Your task to perform on an android device: find which apps use the phone's location Image 0: 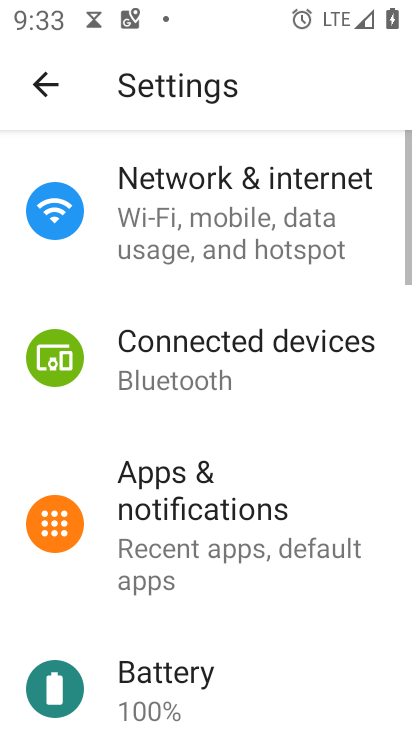
Step 0: press home button
Your task to perform on an android device: find which apps use the phone's location Image 1: 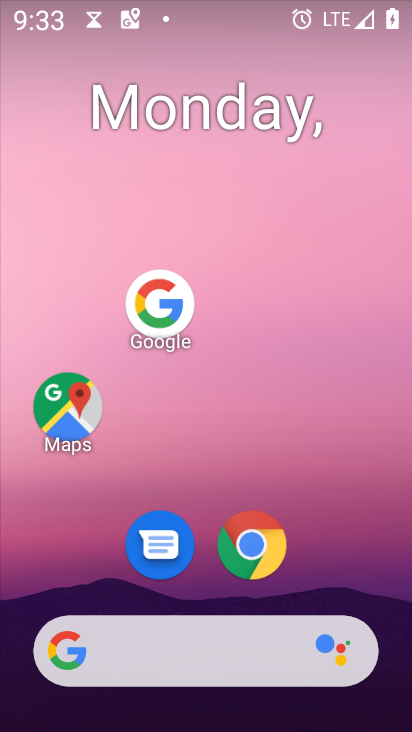
Step 1: drag from (207, 638) to (324, 70)
Your task to perform on an android device: find which apps use the phone's location Image 2: 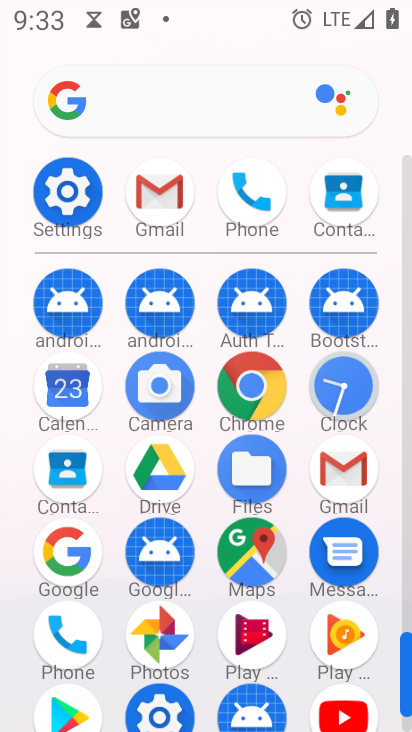
Step 2: click (85, 205)
Your task to perform on an android device: find which apps use the phone's location Image 3: 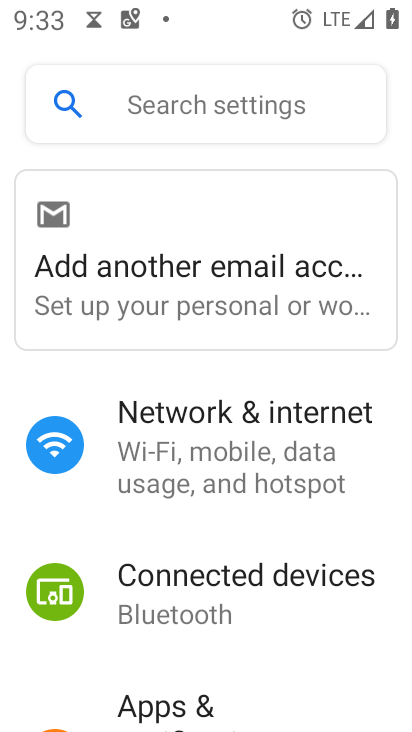
Step 3: drag from (316, 691) to (355, 144)
Your task to perform on an android device: find which apps use the phone's location Image 4: 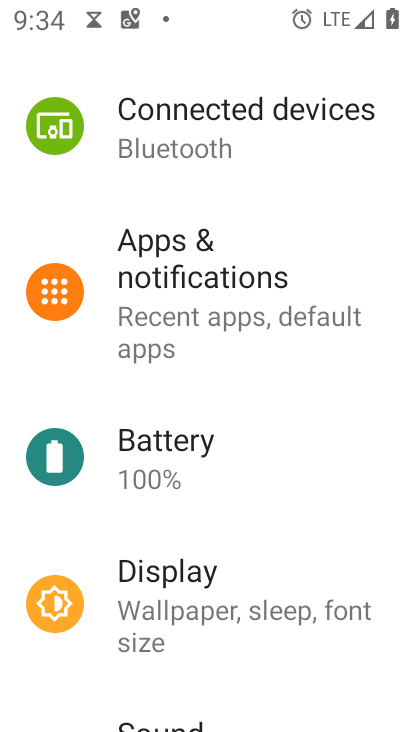
Step 4: drag from (217, 621) to (301, 135)
Your task to perform on an android device: find which apps use the phone's location Image 5: 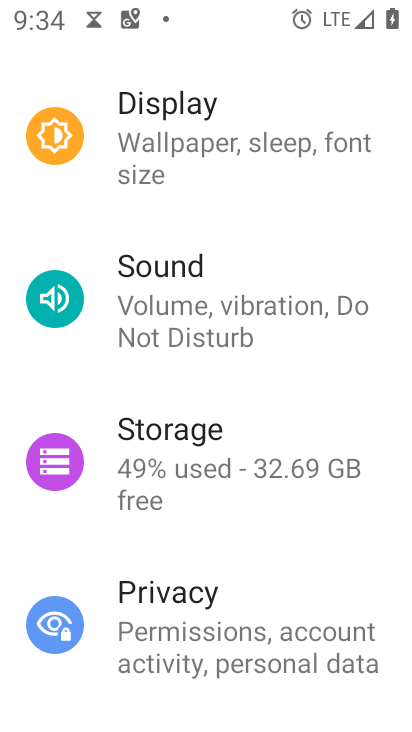
Step 5: drag from (232, 559) to (294, 142)
Your task to perform on an android device: find which apps use the phone's location Image 6: 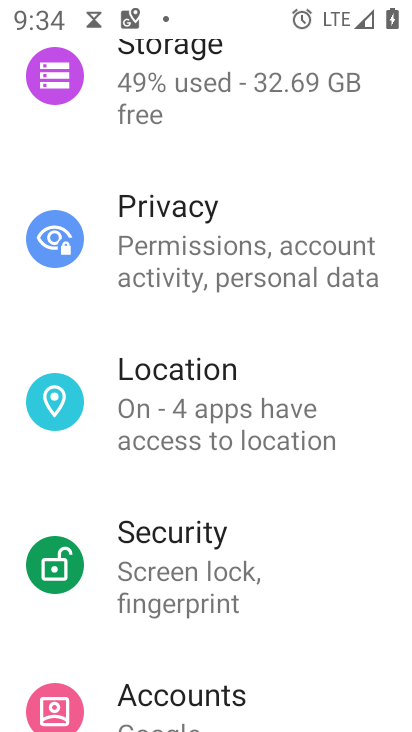
Step 6: click (211, 413)
Your task to perform on an android device: find which apps use the phone's location Image 7: 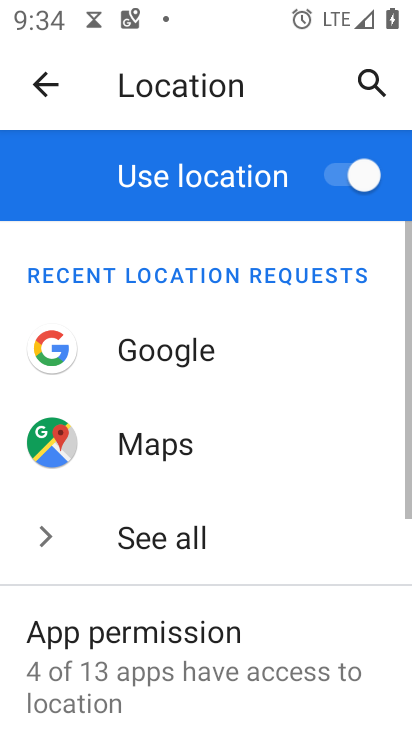
Step 7: click (110, 639)
Your task to perform on an android device: find which apps use the phone's location Image 8: 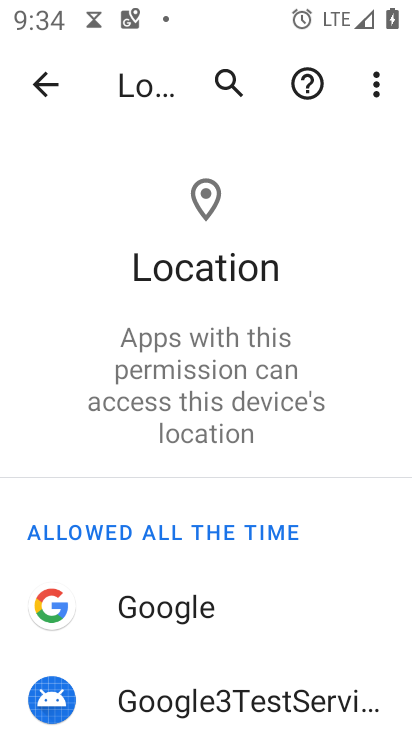
Step 8: drag from (193, 656) to (285, 27)
Your task to perform on an android device: find which apps use the phone's location Image 9: 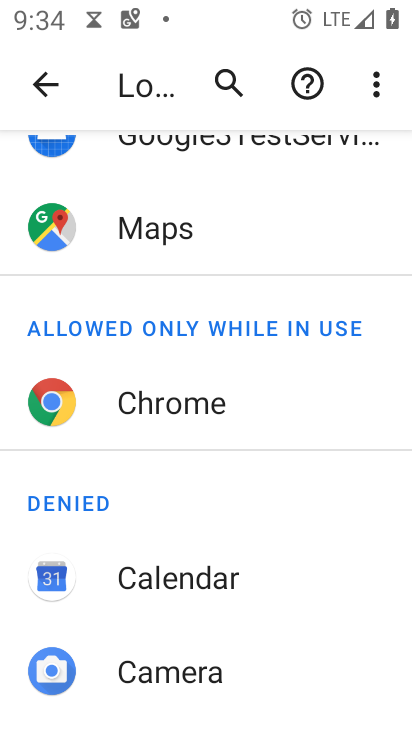
Step 9: drag from (206, 691) to (349, 34)
Your task to perform on an android device: find which apps use the phone's location Image 10: 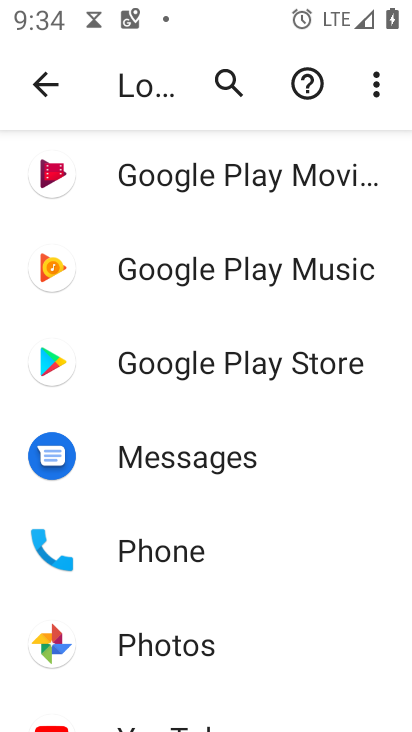
Step 10: click (196, 555)
Your task to perform on an android device: find which apps use the phone's location Image 11: 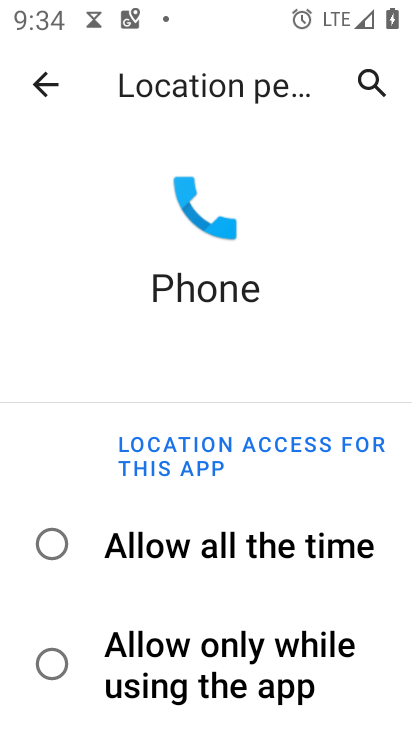
Step 11: task complete